Your task to perform on an android device: turn on sleep mode Image 0: 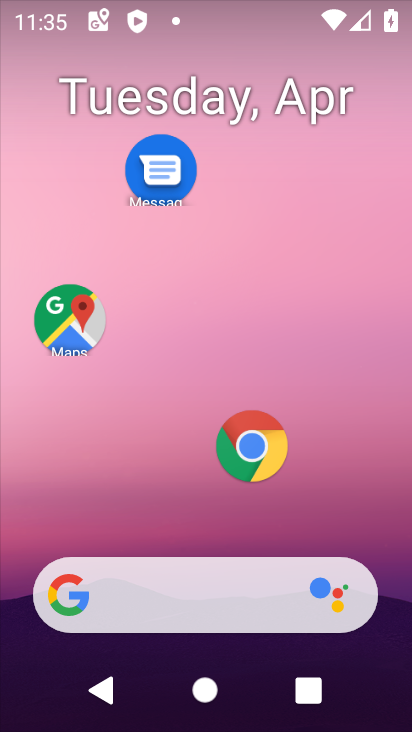
Step 0: drag from (259, 537) to (262, 9)
Your task to perform on an android device: turn on sleep mode Image 1: 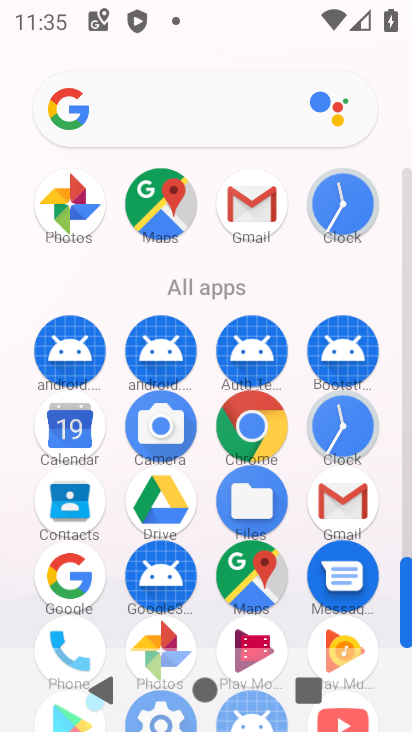
Step 1: drag from (282, 613) to (296, 280)
Your task to perform on an android device: turn on sleep mode Image 2: 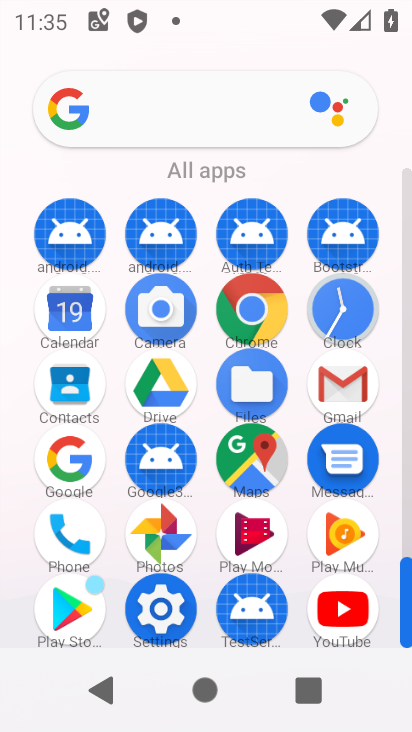
Step 2: click (156, 608)
Your task to perform on an android device: turn on sleep mode Image 3: 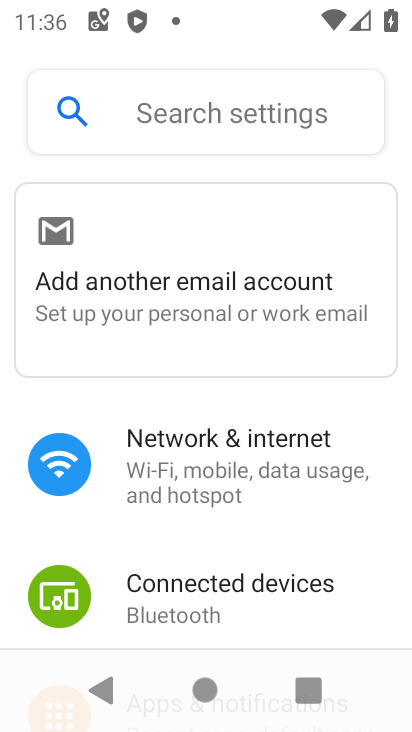
Step 3: task complete